Your task to perform on an android device: delete browsing data in the chrome app Image 0: 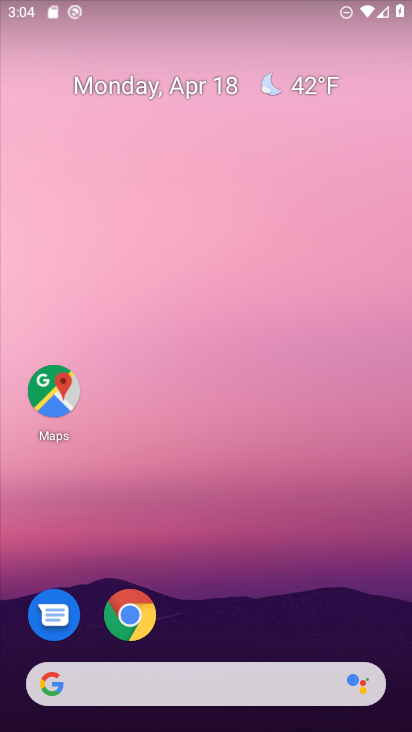
Step 0: click (117, 614)
Your task to perform on an android device: delete browsing data in the chrome app Image 1: 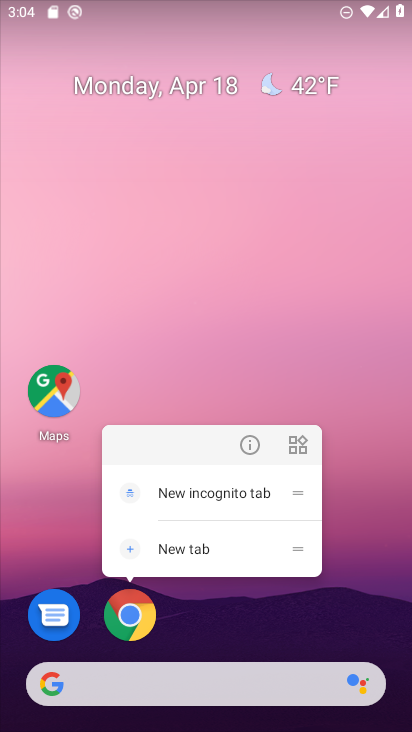
Step 1: click (118, 613)
Your task to perform on an android device: delete browsing data in the chrome app Image 2: 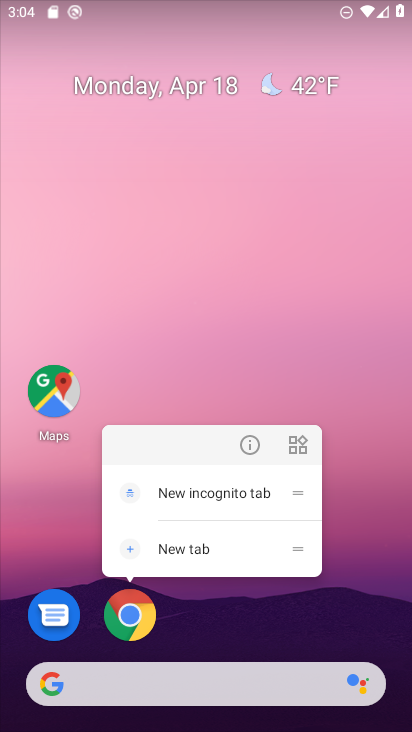
Step 2: click (179, 630)
Your task to perform on an android device: delete browsing data in the chrome app Image 3: 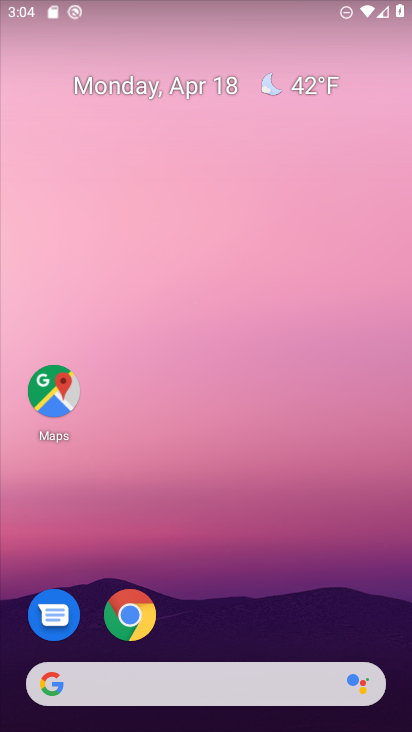
Step 3: click (127, 619)
Your task to perform on an android device: delete browsing data in the chrome app Image 4: 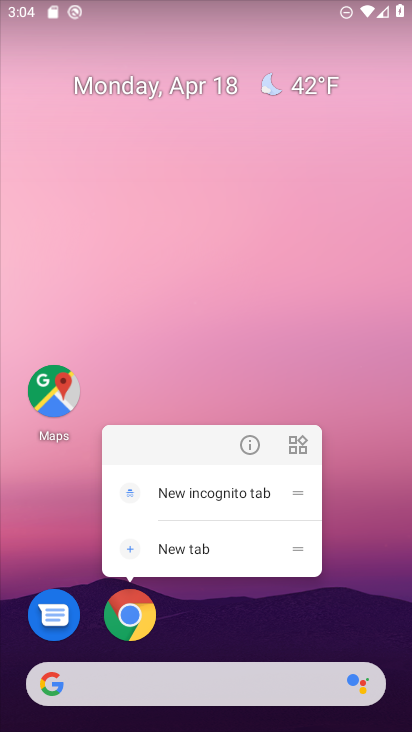
Step 4: click (127, 618)
Your task to perform on an android device: delete browsing data in the chrome app Image 5: 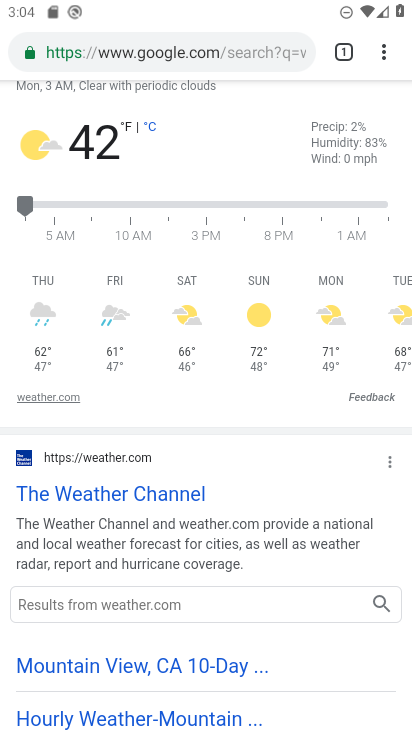
Step 5: click (382, 51)
Your task to perform on an android device: delete browsing data in the chrome app Image 6: 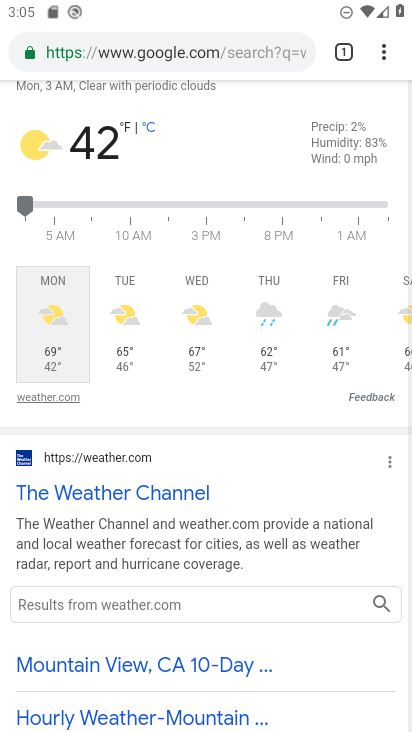
Step 6: click (382, 51)
Your task to perform on an android device: delete browsing data in the chrome app Image 7: 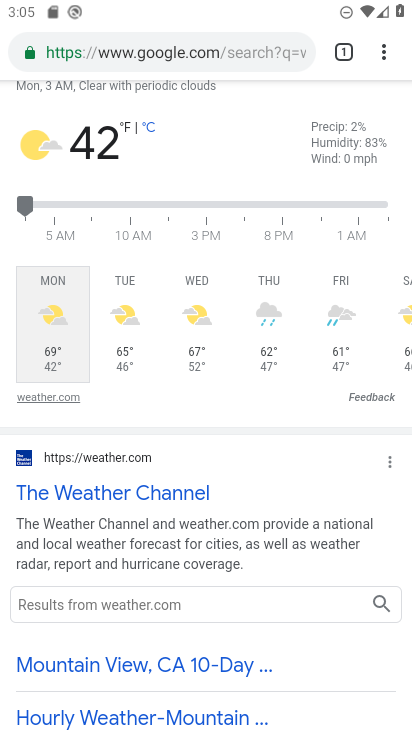
Step 7: click (382, 51)
Your task to perform on an android device: delete browsing data in the chrome app Image 8: 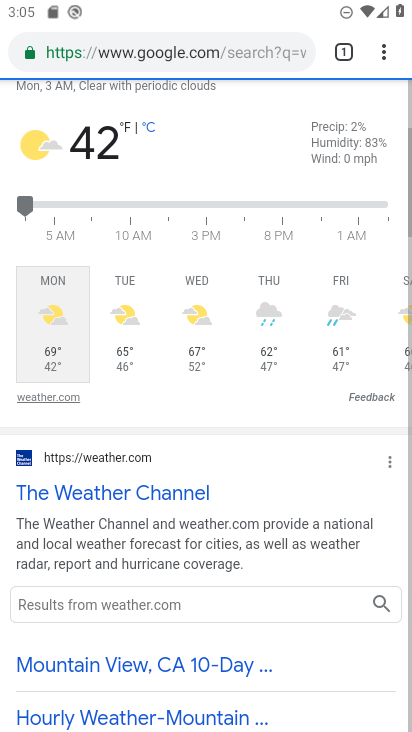
Step 8: click (382, 51)
Your task to perform on an android device: delete browsing data in the chrome app Image 9: 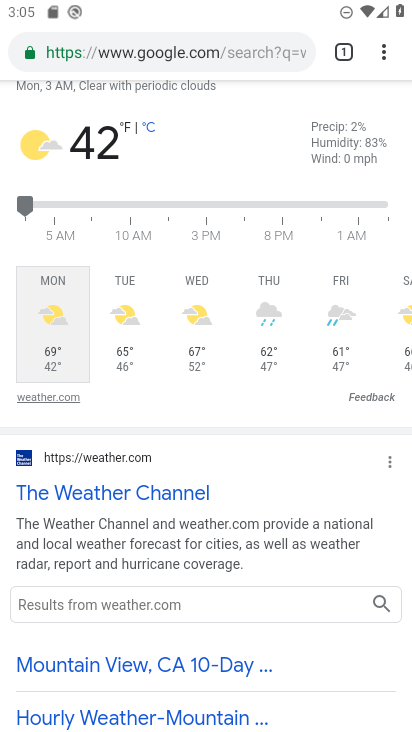
Step 9: click (382, 51)
Your task to perform on an android device: delete browsing data in the chrome app Image 10: 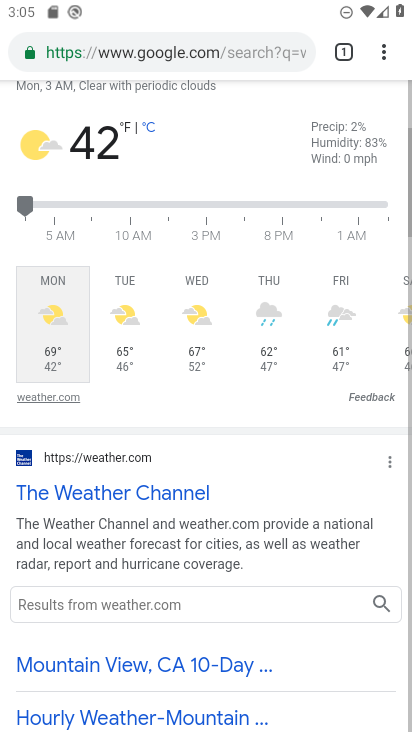
Step 10: click (382, 51)
Your task to perform on an android device: delete browsing data in the chrome app Image 11: 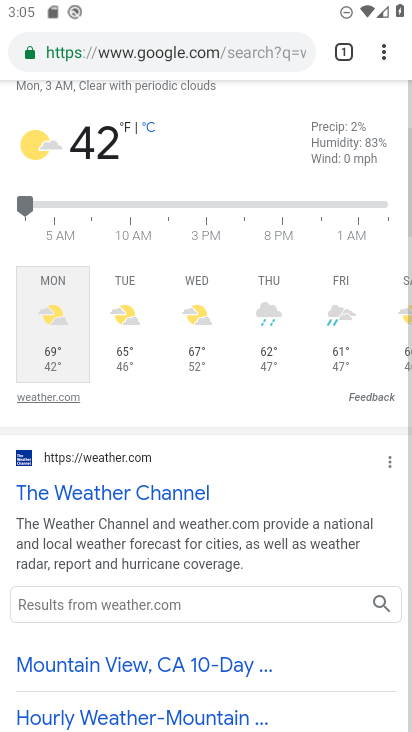
Step 11: click (382, 51)
Your task to perform on an android device: delete browsing data in the chrome app Image 12: 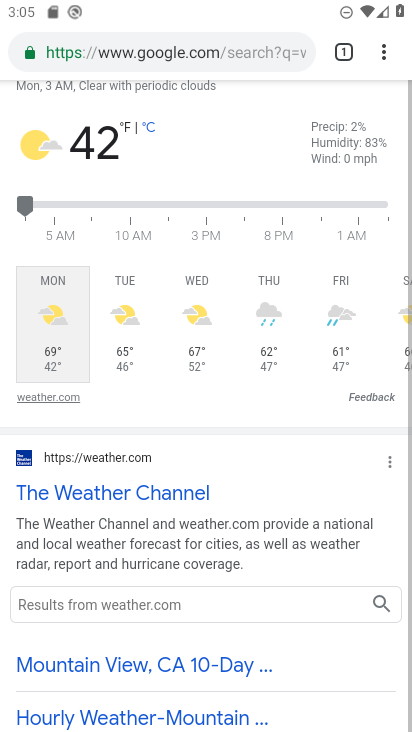
Step 12: click (382, 51)
Your task to perform on an android device: delete browsing data in the chrome app Image 13: 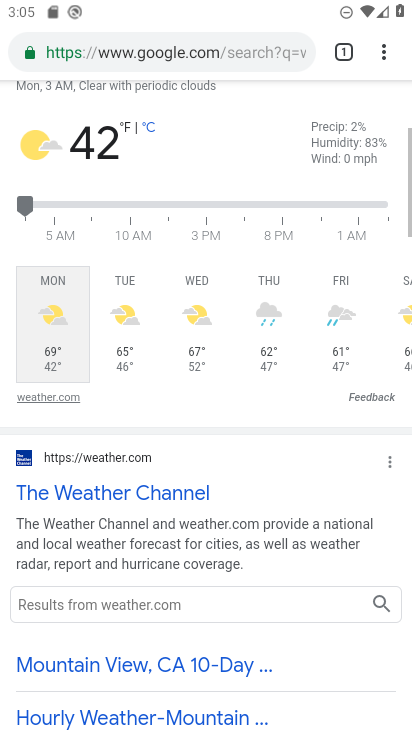
Step 13: click (382, 51)
Your task to perform on an android device: delete browsing data in the chrome app Image 14: 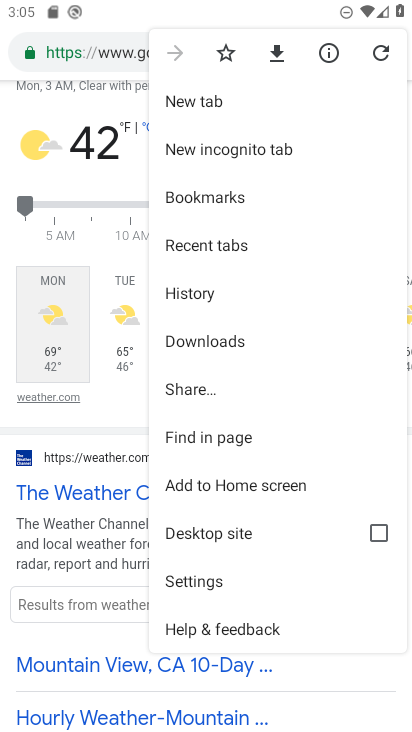
Step 14: click (266, 580)
Your task to perform on an android device: delete browsing data in the chrome app Image 15: 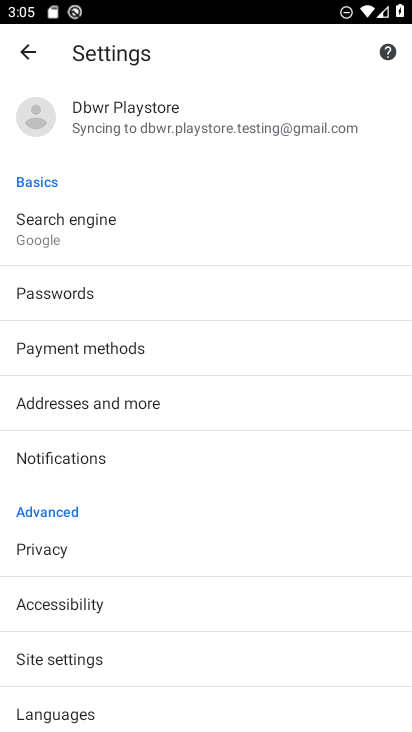
Step 15: drag from (258, 549) to (289, 208)
Your task to perform on an android device: delete browsing data in the chrome app Image 16: 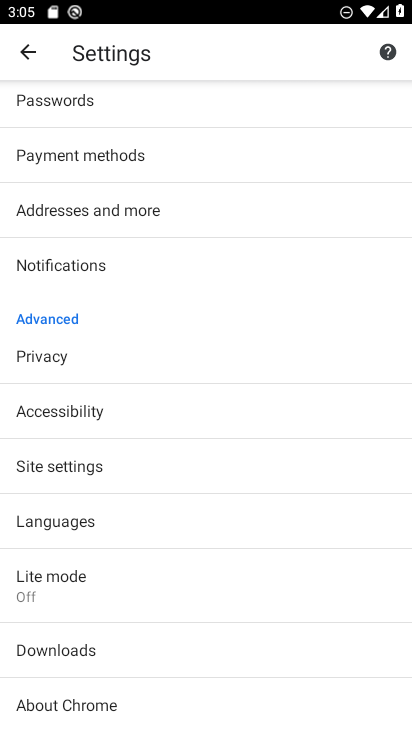
Step 16: click (152, 471)
Your task to perform on an android device: delete browsing data in the chrome app Image 17: 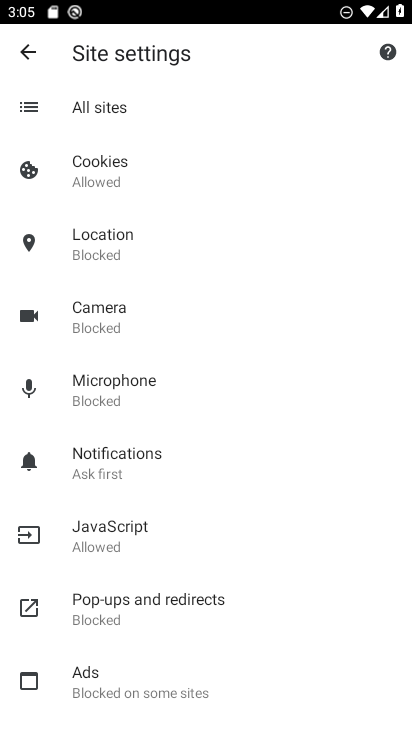
Step 17: drag from (277, 643) to (298, 70)
Your task to perform on an android device: delete browsing data in the chrome app Image 18: 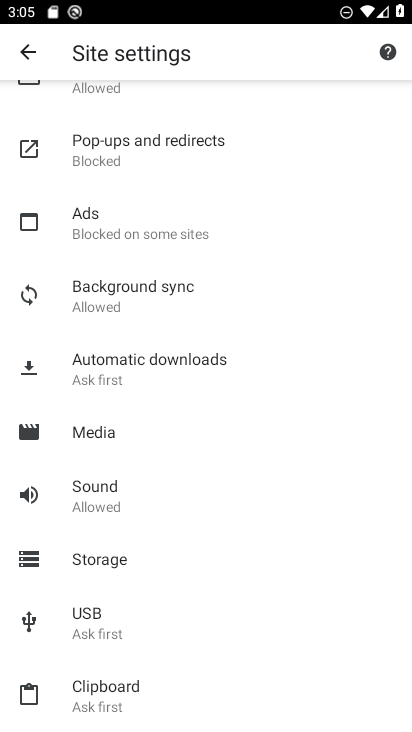
Step 18: drag from (194, 595) to (257, 301)
Your task to perform on an android device: delete browsing data in the chrome app Image 19: 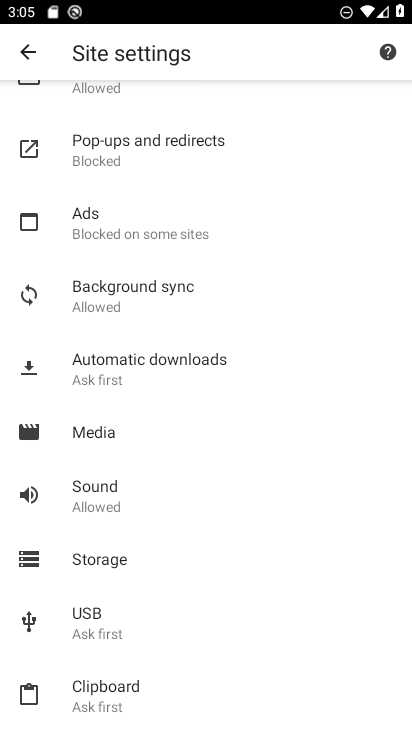
Step 19: click (168, 563)
Your task to perform on an android device: delete browsing data in the chrome app Image 20: 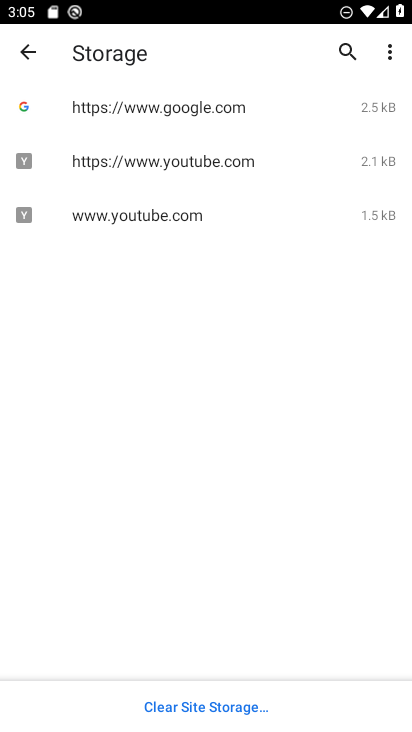
Step 20: click (229, 709)
Your task to perform on an android device: delete browsing data in the chrome app Image 21: 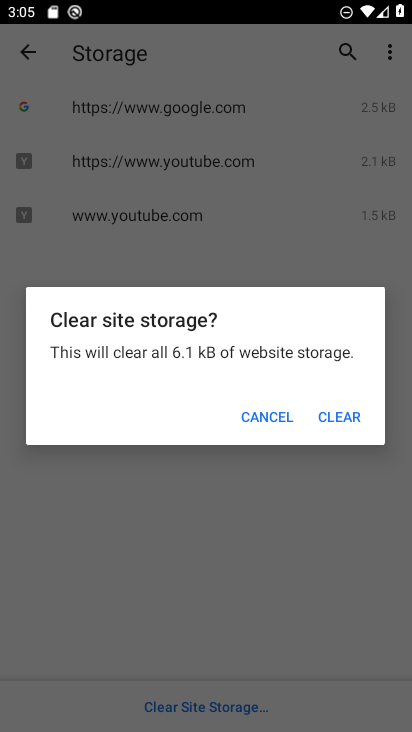
Step 21: click (343, 409)
Your task to perform on an android device: delete browsing data in the chrome app Image 22: 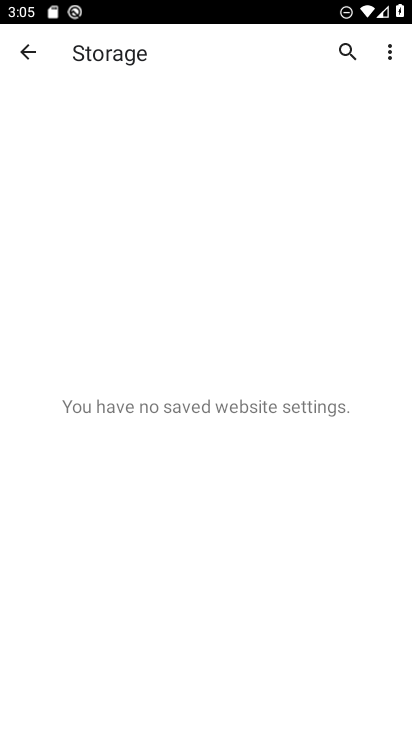
Step 22: task complete